Your task to perform on an android device: visit the assistant section in the google photos Image 0: 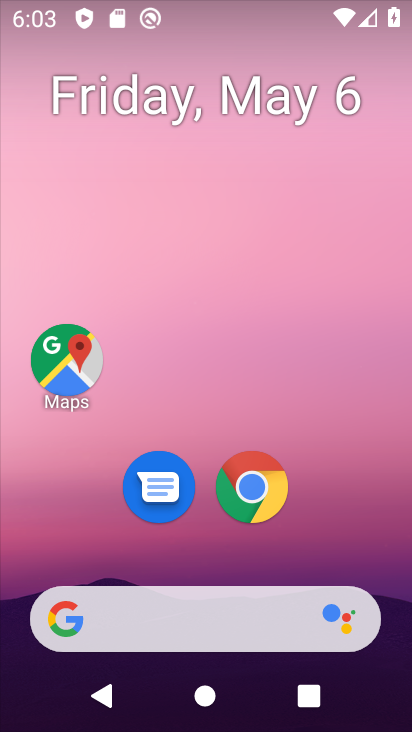
Step 0: drag from (318, 541) to (321, 91)
Your task to perform on an android device: visit the assistant section in the google photos Image 1: 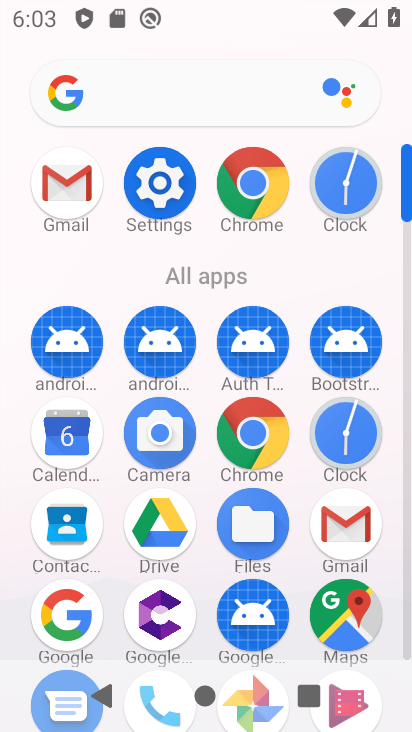
Step 1: drag from (295, 285) to (297, 27)
Your task to perform on an android device: visit the assistant section in the google photos Image 2: 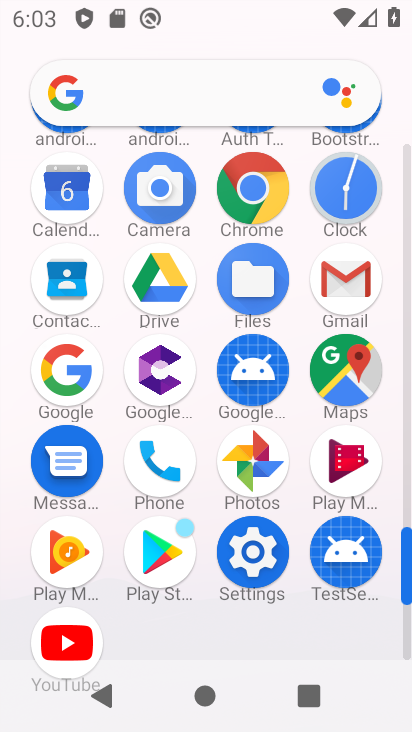
Step 2: click (248, 448)
Your task to perform on an android device: visit the assistant section in the google photos Image 3: 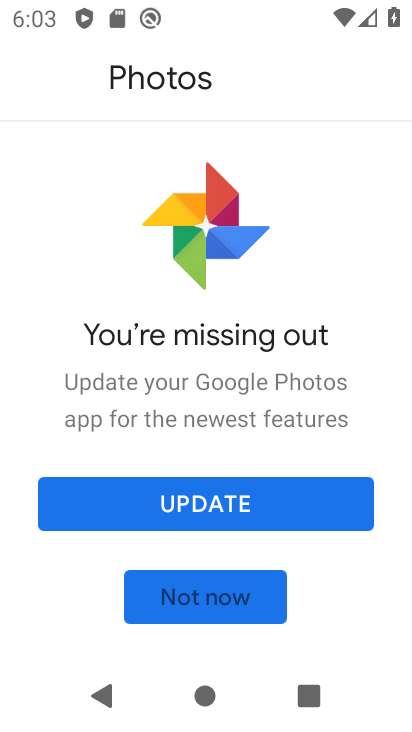
Step 3: click (282, 509)
Your task to perform on an android device: visit the assistant section in the google photos Image 4: 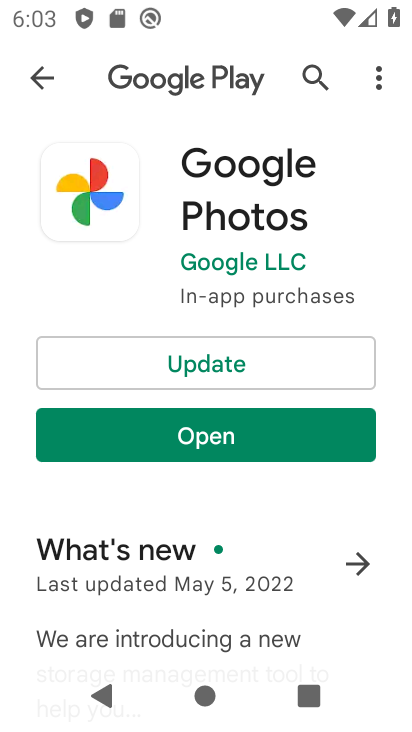
Step 4: click (250, 360)
Your task to perform on an android device: visit the assistant section in the google photos Image 5: 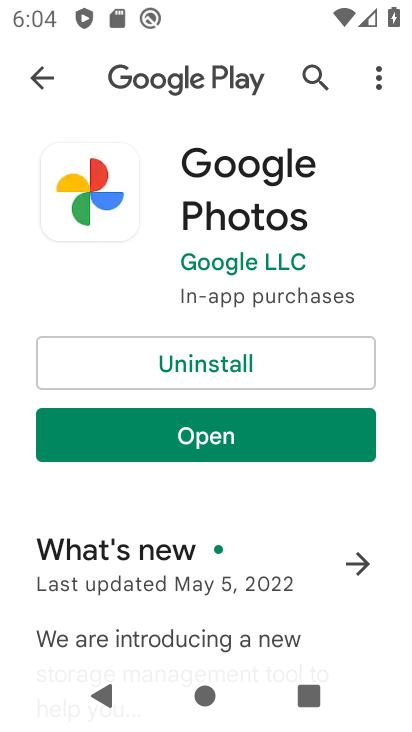
Step 5: click (252, 449)
Your task to perform on an android device: visit the assistant section in the google photos Image 6: 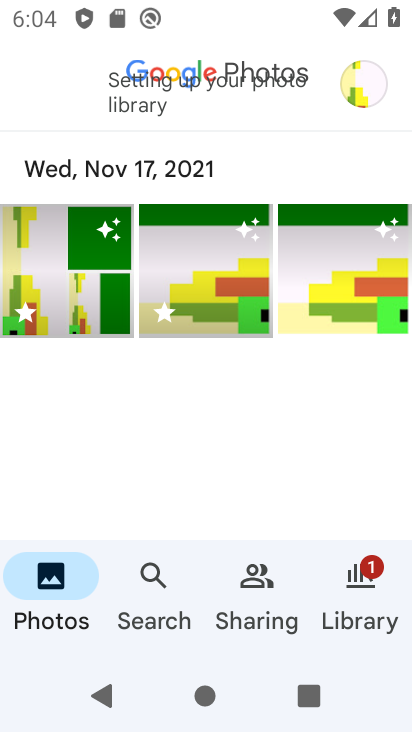
Step 6: click (246, 610)
Your task to perform on an android device: visit the assistant section in the google photos Image 7: 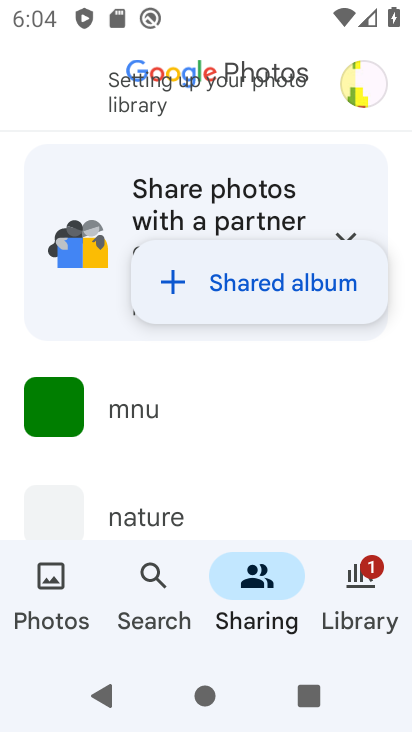
Step 7: task complete